Your task to perform on an android device: Open settings on Google Maps Image 0: 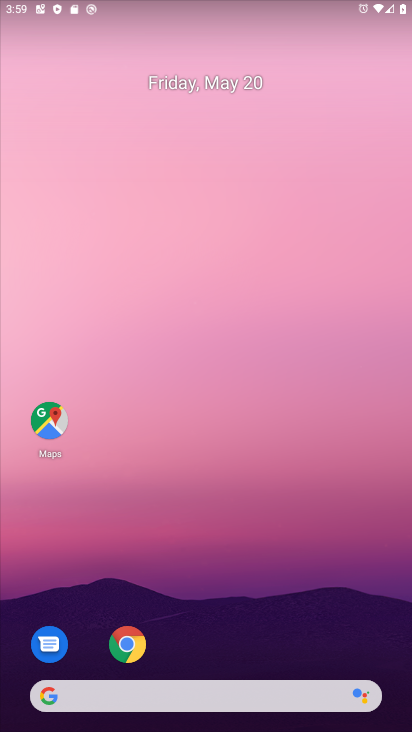
Step 0: drag from (282, 632) to (267, 94)
Your task to perform on an android device: Open settings on Google Maps Image 1: 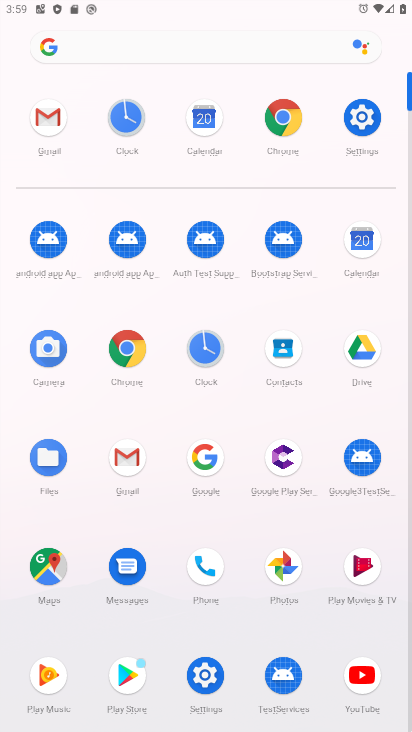
Step 1: click (50, 559)
Your task to perform on an android device: Open settings on Google Maps Image 2: 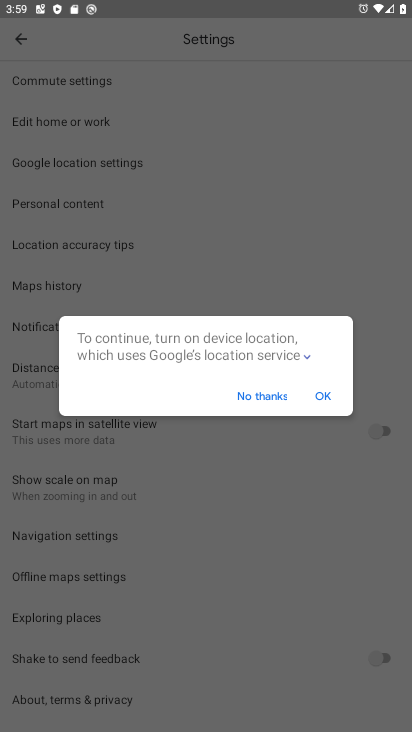
Step 2: click (322, 394)
Your task to perform on an android device: Open settings on Google Maps Image 3: 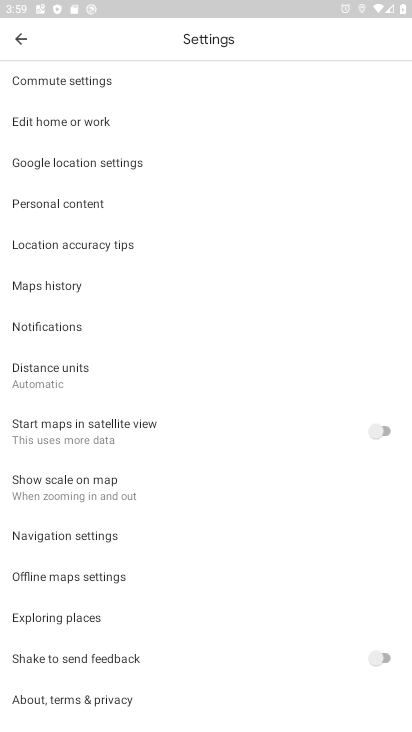
Step 3: task complete